Your task to perform on an android device: turn off data saver in the chrome app Image 0: 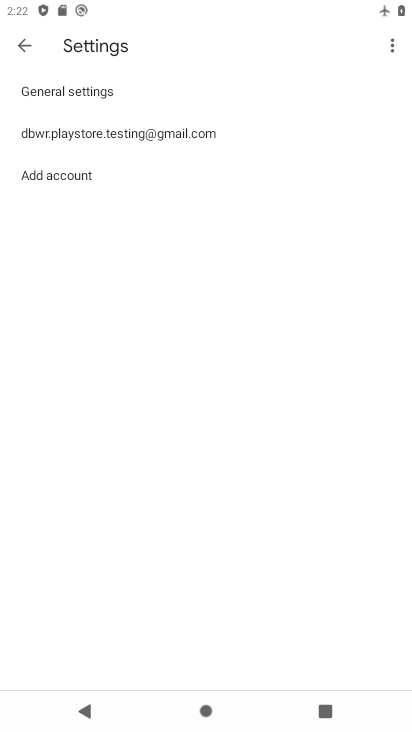
Step 0: press home button
Your task to perform on an android device: turn off data saver in the chrome app Image 1: 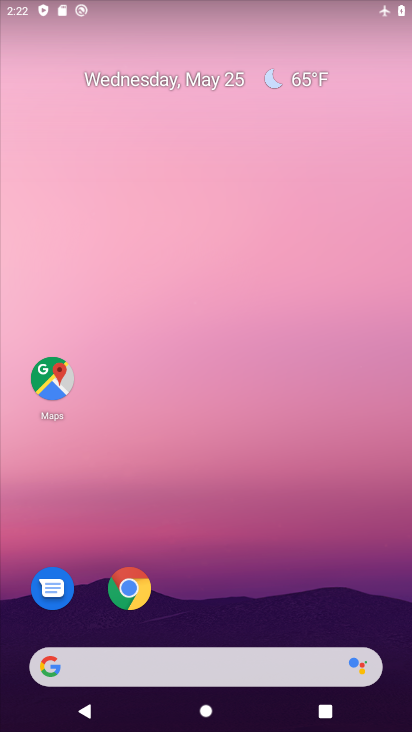
Step 1: click (128, 587)
Your task to perform on an android device: turn off data saver in the chrome app Image 2: 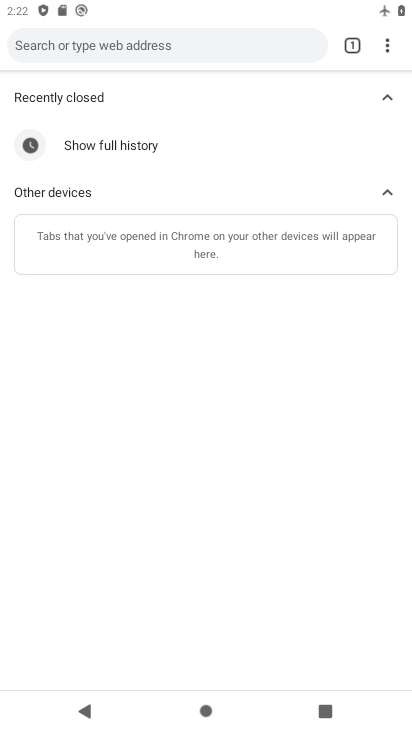
Step 2: click (388, 46)
Your task to perform on an android device: turn off data saver in the chrome app Image 3: 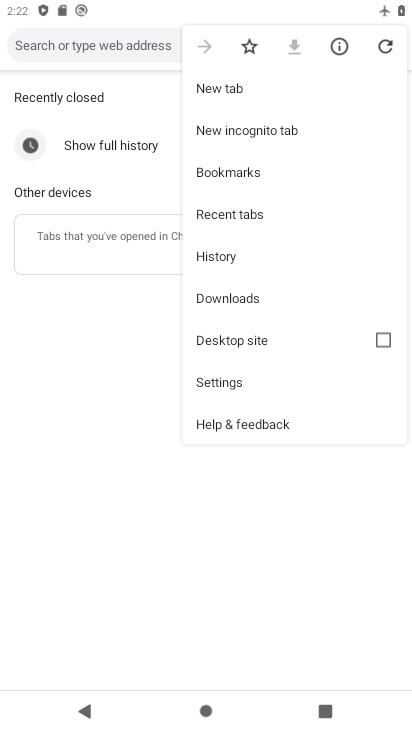
Step 3: click (236, 380)
Your task to perform on an android device: turn off data saver in the chrome app Image 4: 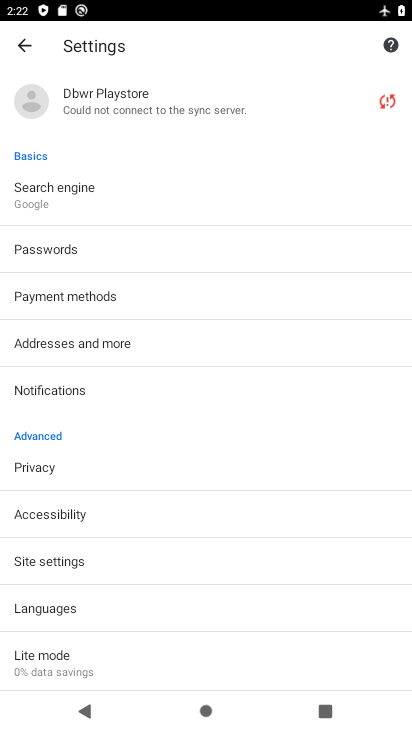
Step 4: drag from (69, 556) to (99, 193)
Your task to perform on an android device: turn off data saver in the chrome app Image 5: 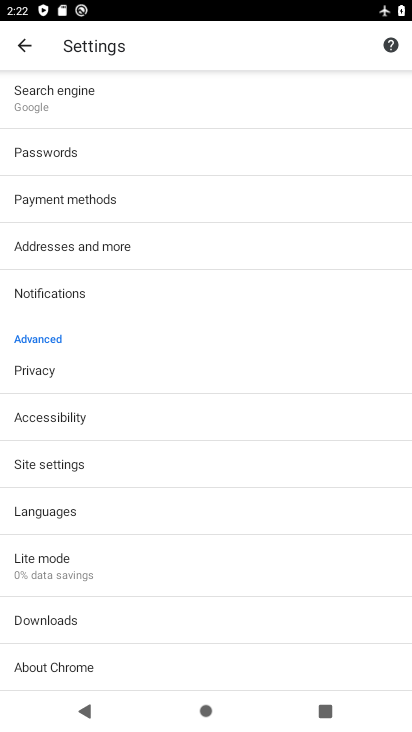
Step 5: click (65, 554)
Your task to perform on an android device: turn off data saver in the chrome app Image 6: 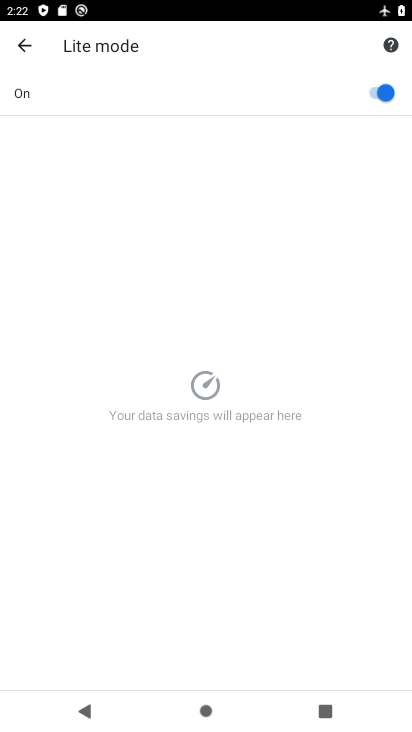
Step 6: click (378, 89)
Your task to perform on an android device: turn off data saver in the chrome app Image 7: 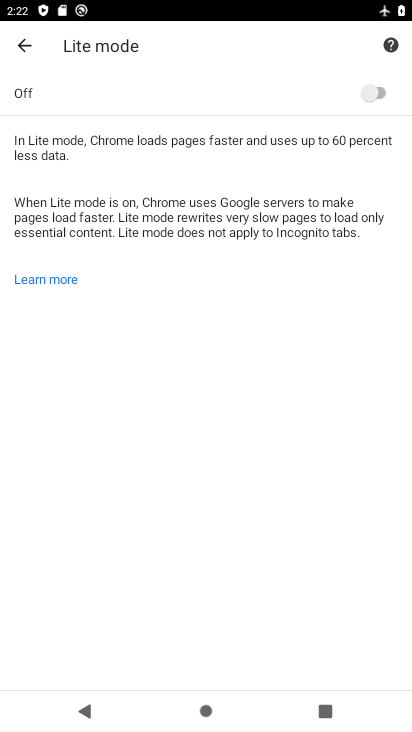
Step 7: task complete